Your task to perform on an android device: change the upload size in google photos Image 0: 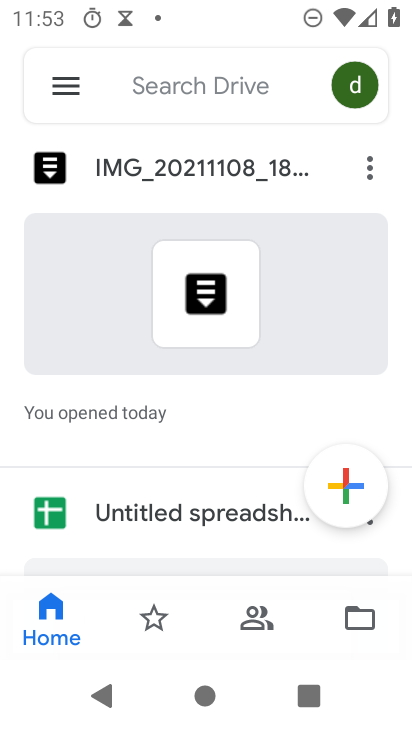
Step 0: drag from (357, 690) to (263, 229)
Your task to perform on an android device: change the upload size in google photos Image 1: 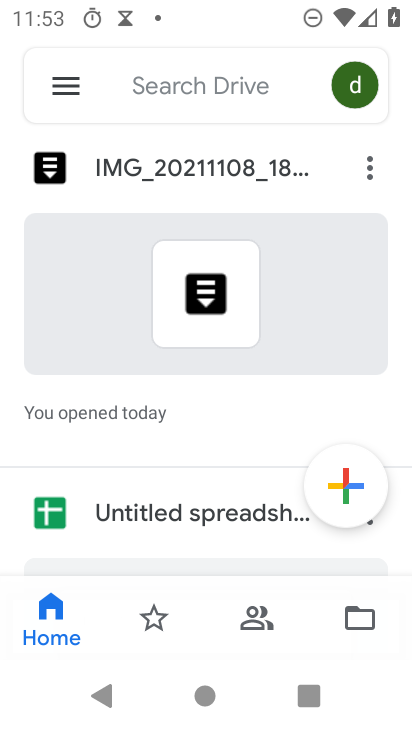
Step 1: press home button
Your task to perform on an android device: change the upload size in google photos Image 2: 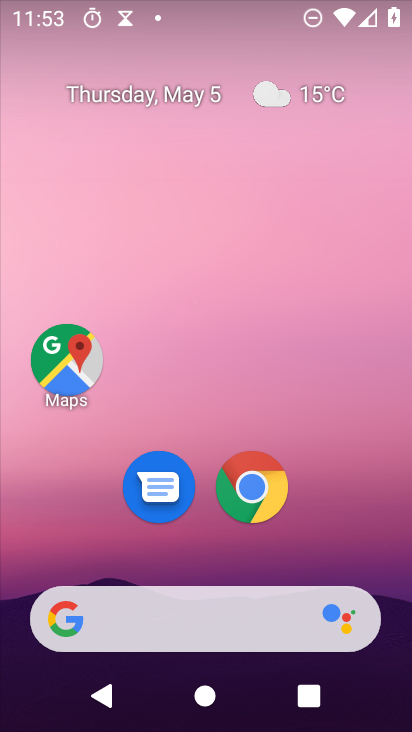
Step 2: drag from (358, 541) to (196, 236)
Your task to perform on an android device: change the upload size in google photos Image 3: 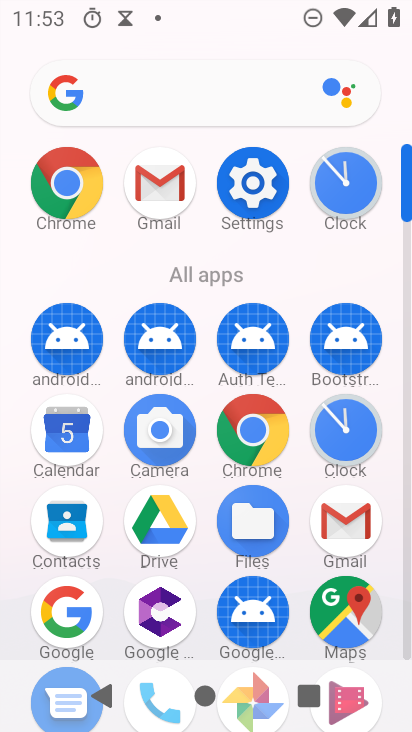
Step 3: drag from (294, 505) to (299, 130)
Your task to perform on an android device: change the upload size in google photos Image 4: 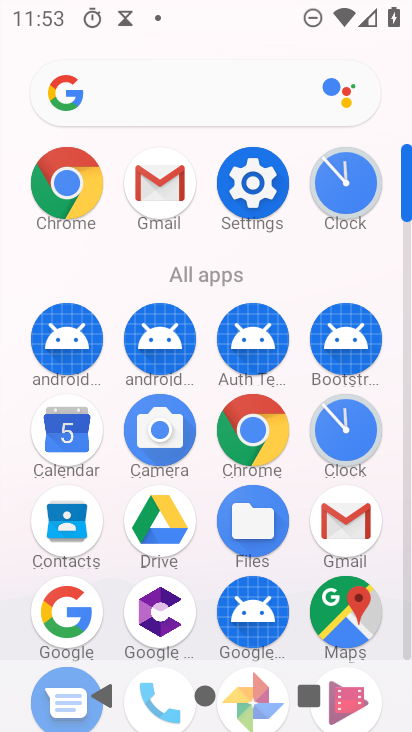
Step 4: drag from (275, 570) to (297, 54)
Your task to perform on an android device: change the upload size in google photos Image 5: 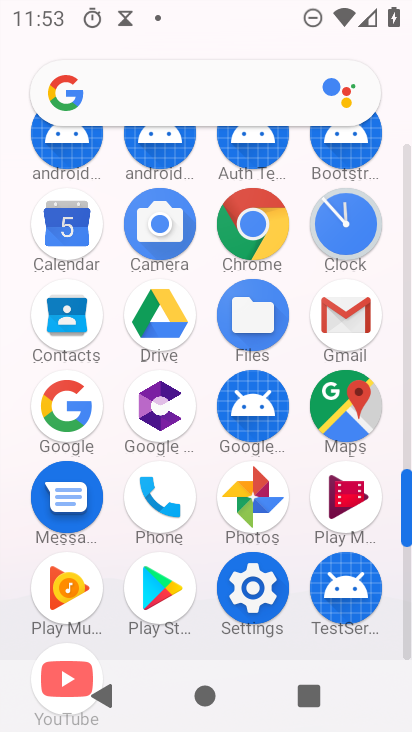
Step 5: drag from (324, 522) to (284, 68)
Your task to perform on an android device: change the upload size in google photos Image 6: 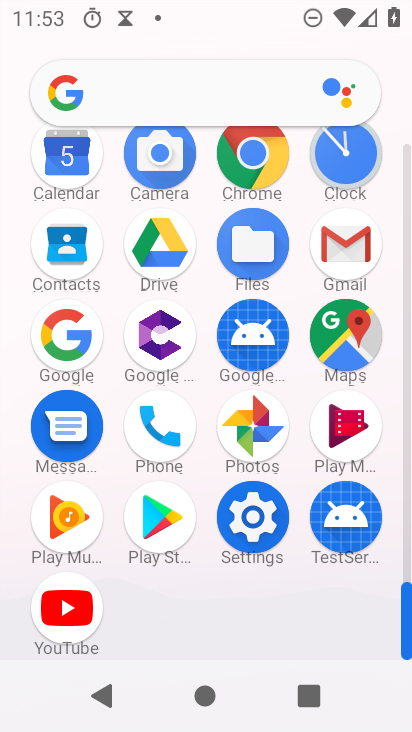
Step 6: click (249, 428)
Your task to perform on an android device: change the upload size in google photos Image 7: 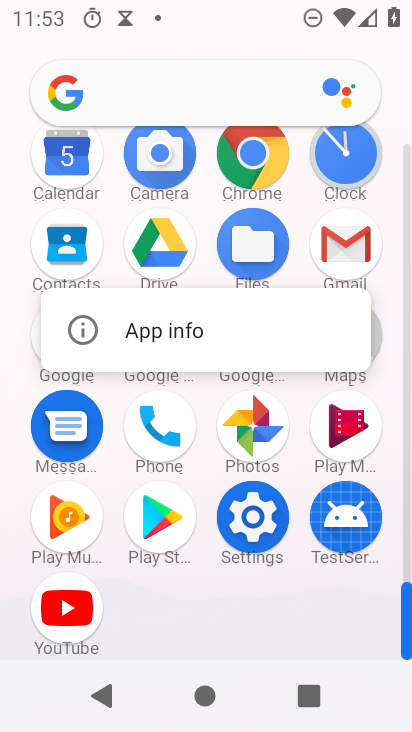
Step 7: click (244, 430)
Your task to perform on an android device: change the upload size in google photos Image 8: 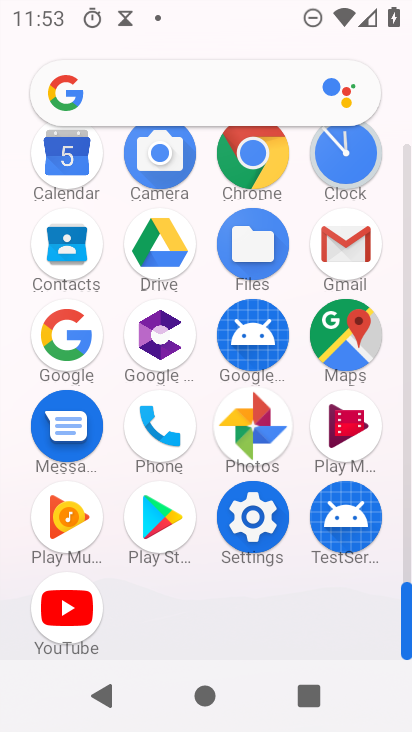
Step 8: click (245, 434)
Your task to perform on an android device: change the upload size in google photos Image 9: 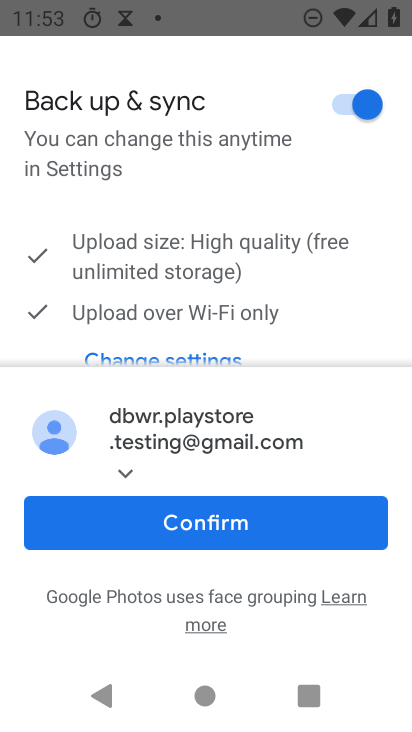
Step 9: click (230, 518)
Your task to perform on an android device: change the upload size in google photos Image 10: 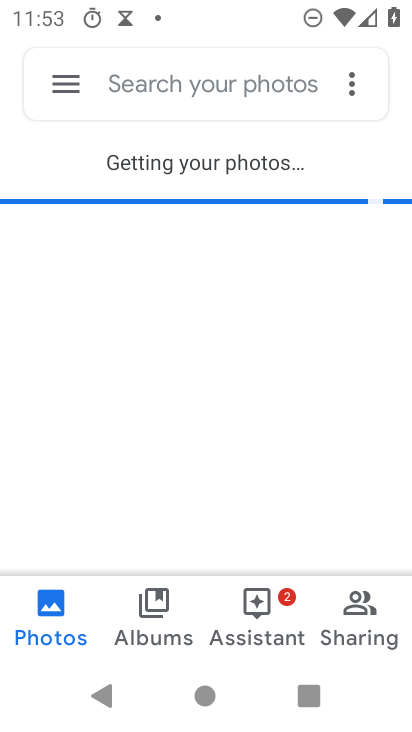
Step 10: click (80, 89)
Your task to perform on an android device: change the upload size in google photos Image 11: 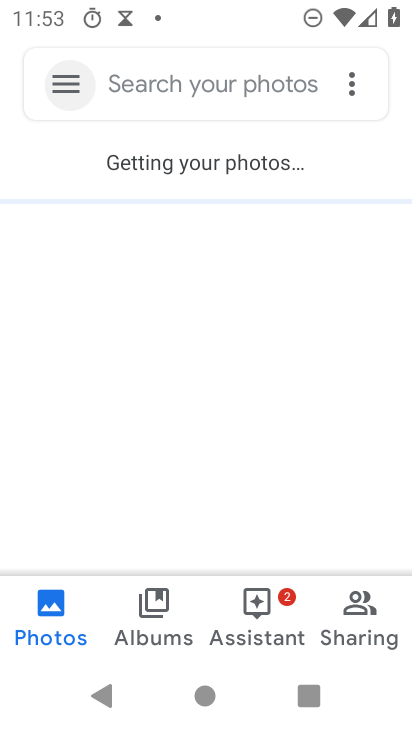
Step 11: click (80, 89)
Your task to perform on an android device: change the upload size in google photos Image 12: 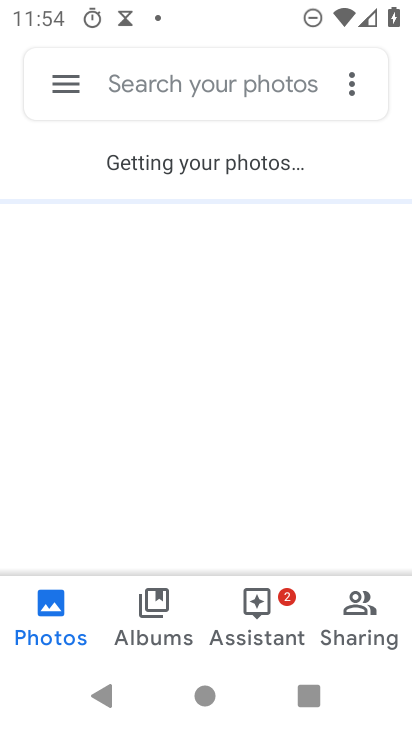
Step 12: click (53, 90)
Your task to perform on an android device: change the upload size in google photos Image 13: 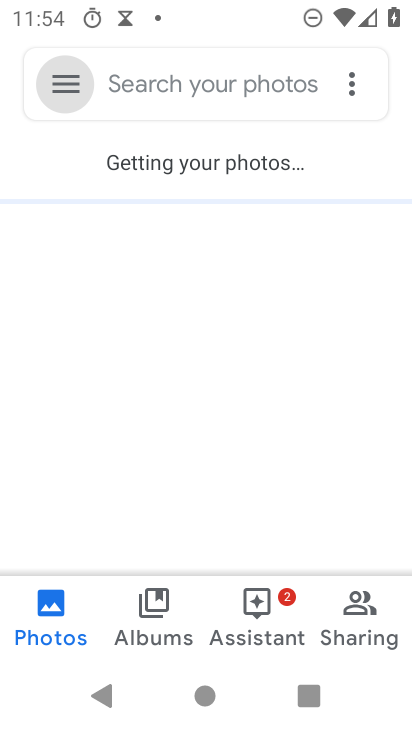
Step 13: click (53, 90)
Your task to perform on an android device: change the upload size in google photos Image 14: 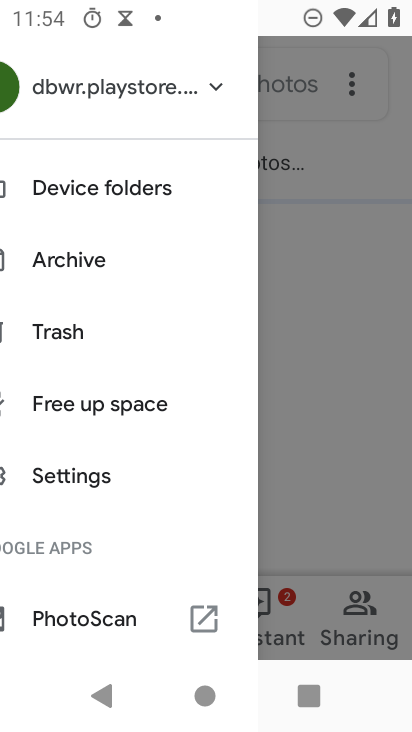
Step 14: click (53, 90)
Your task to perform on an android device: change the upload size in google photos Image 15: 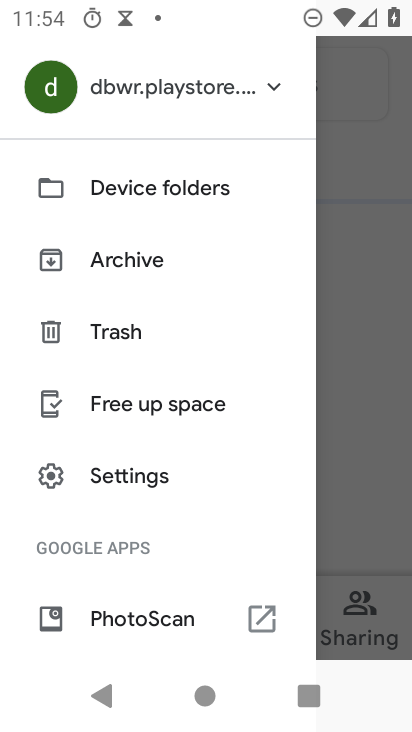
Step 15: drag from (171, 518) to (128, 148)
Your task to perform on an android device: change the upload size in google photos Image 16: 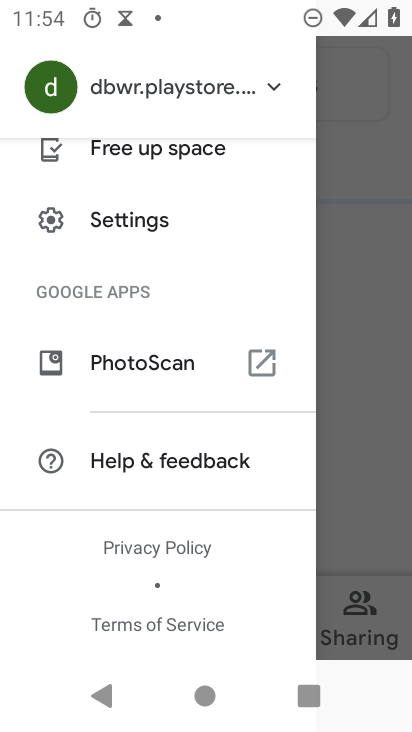
Step 16: click (124, 210)
Your task to perform on an android device: change the upload size in google photos Image 17: 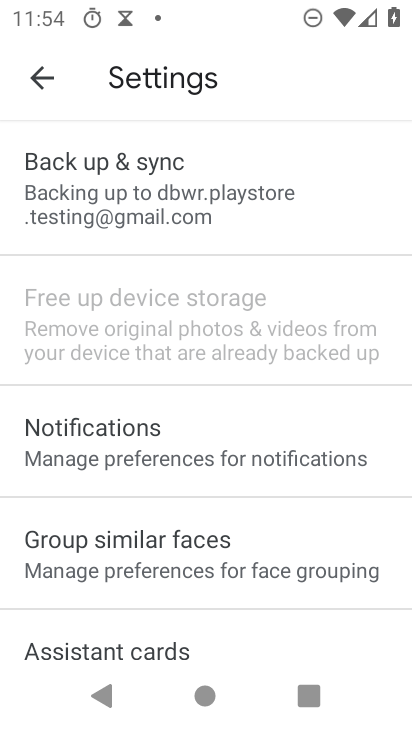
Step 17: click (124, 210)
Your task to perform on an android device: change the upload size in google photos Image 18: 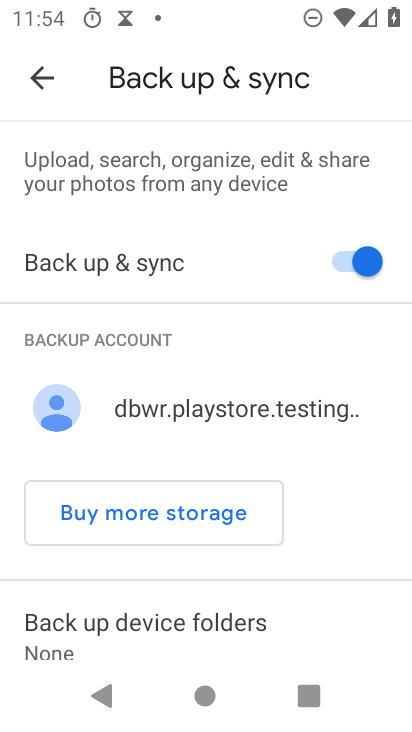
Step 18: drag from (204, 608) to (99, 221)
Your task to perform on an android device: change the upload size in google photos Image 19: 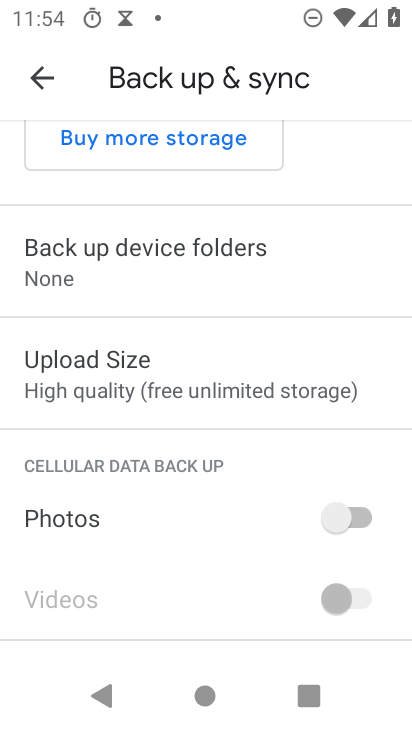
Step 19: drag from (86, 352) to (129, 681)
Your task to perform on an android device: change the upload size in google photos Image 20: 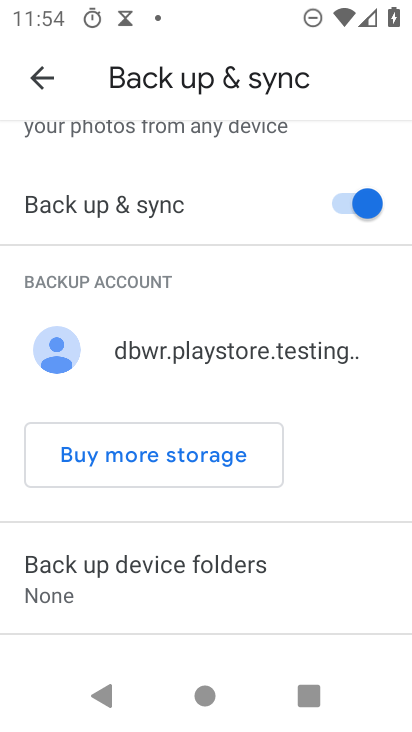
Step 20: drag from (160, 529) to (130, 233)
Your task to perform on an android device: change the upload size in google photos Image 21: 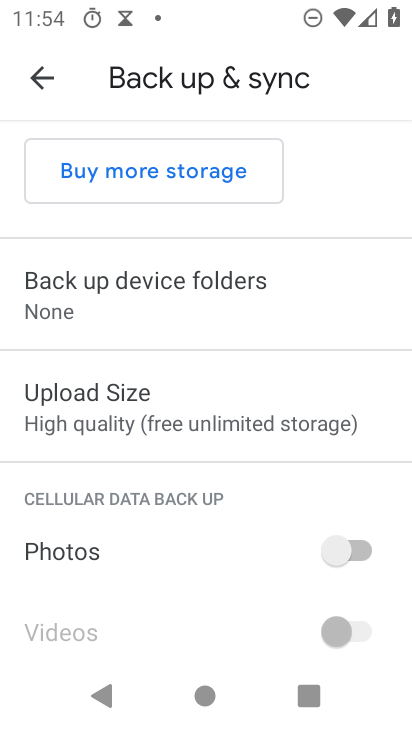
Step 21: click (136, 430)
Your task to perform on an android device: change the upload size in google photos Image 22: 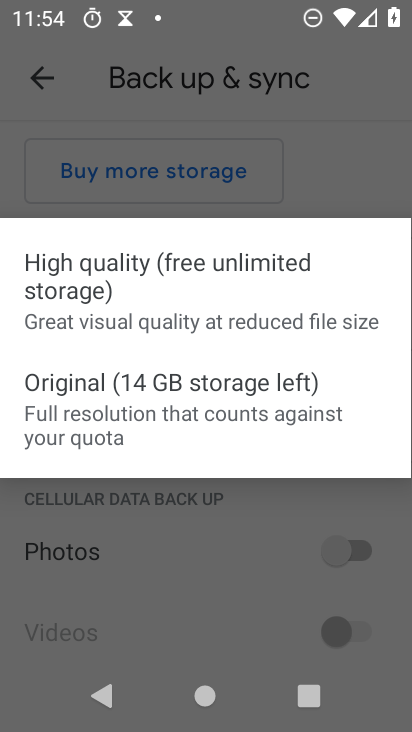
Step 22: click (67, 396)
Your task to perform on an android device: change the upload size in google photos Image 23: 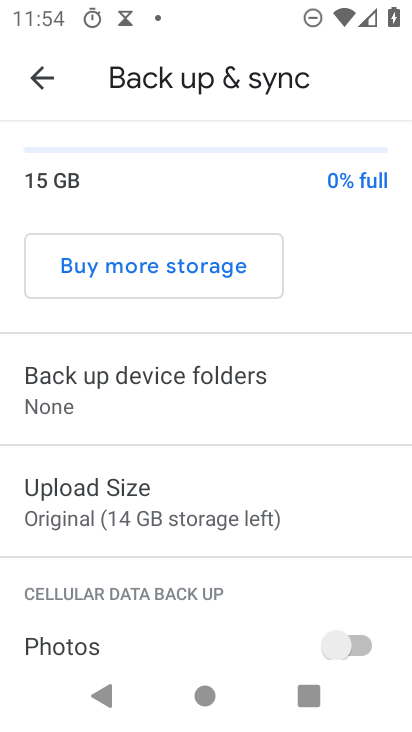
Step 23: drag from (204, 519) to (176, 52)
Your task to perform on an android device: change the upload size in google photos Image 24: 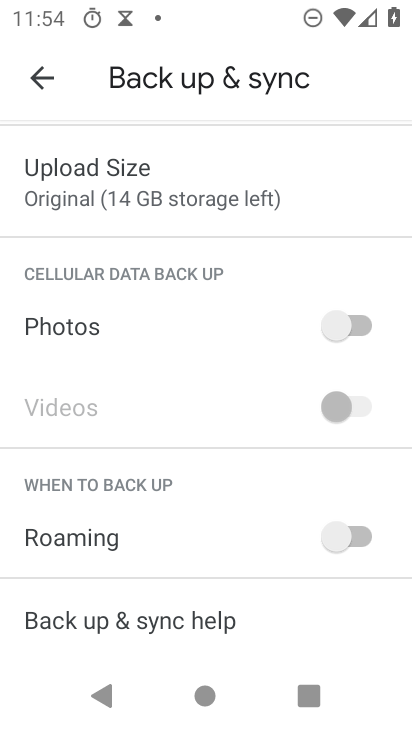
Step 24: click (202, 206)
Your task to perform on an android device: change the upload size in google photos Image 25: 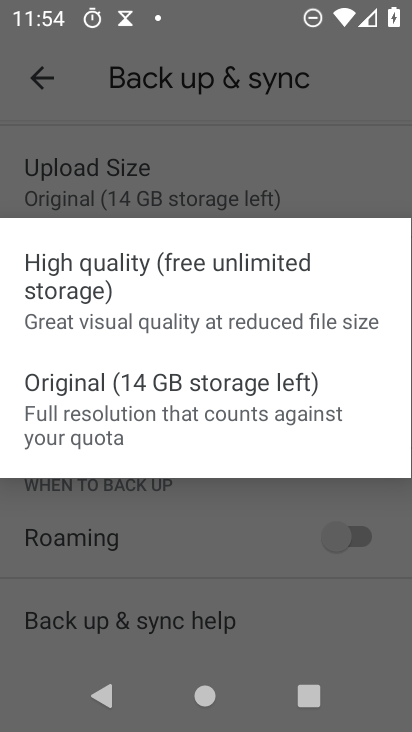
Step 25: click (104, 420)
Your task to perform on an android device: change the upload size in google photos Image 26: 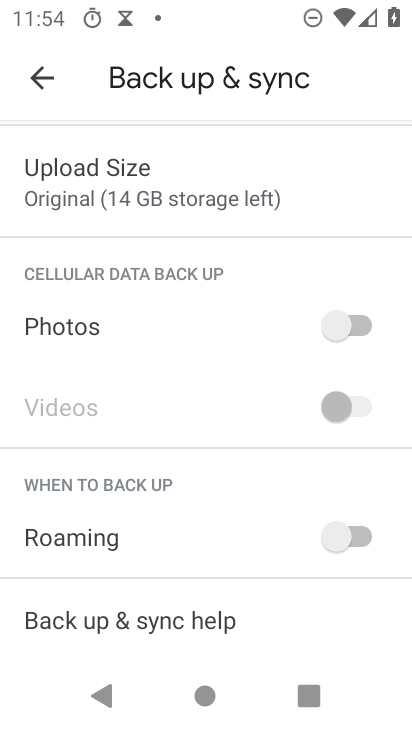
Step 26: task complete